Your task to perform on an android device: open wifi settings Image 0: 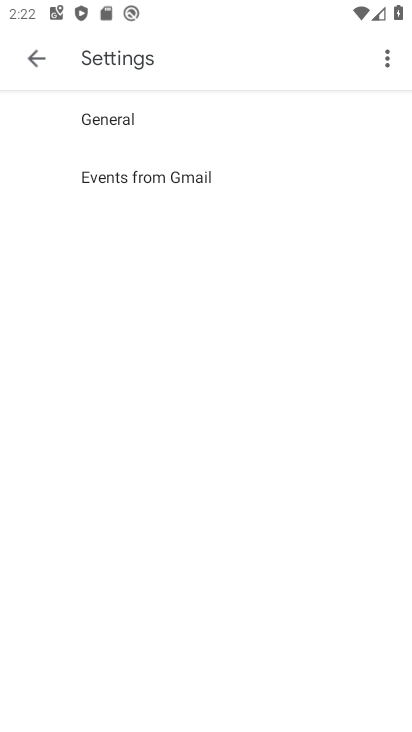
Step 0: press home button
Your task to perform on an android device: open wifi settings Image 1: 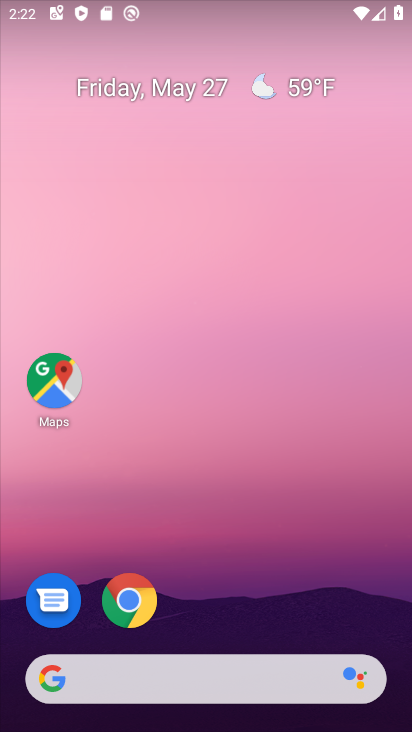
Step 1: drag from (264, 582) to (192, 123)
Your task to perform on an android device: open wifi settings Image 2: 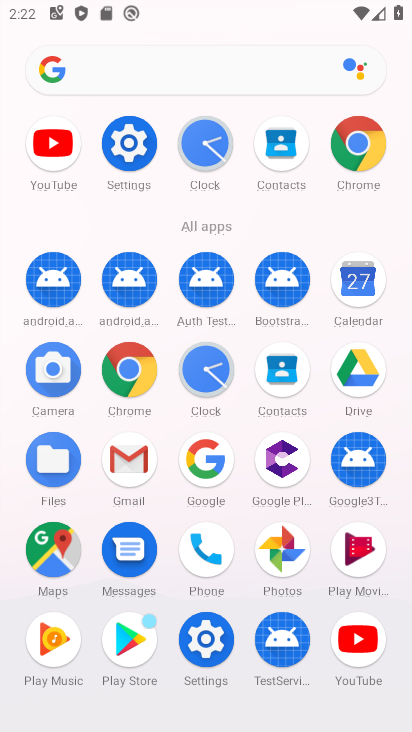
Step 2: click (127, 142)
Your task to perform on an android device: open wifi settings Image 3: 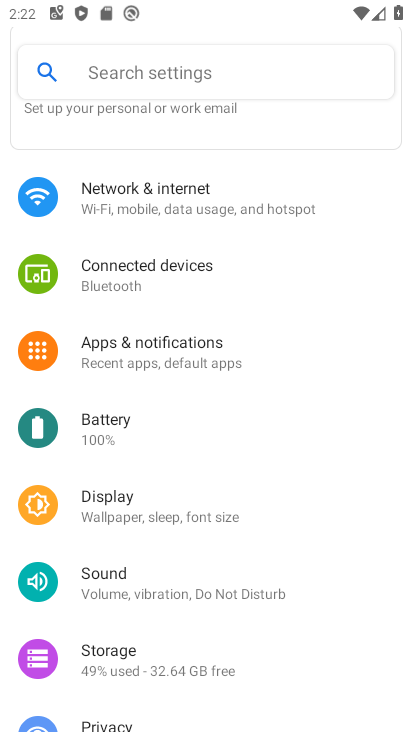
Step 3: click (155, 200)
Your task to perform on an android device: open wifi settings Image 4: 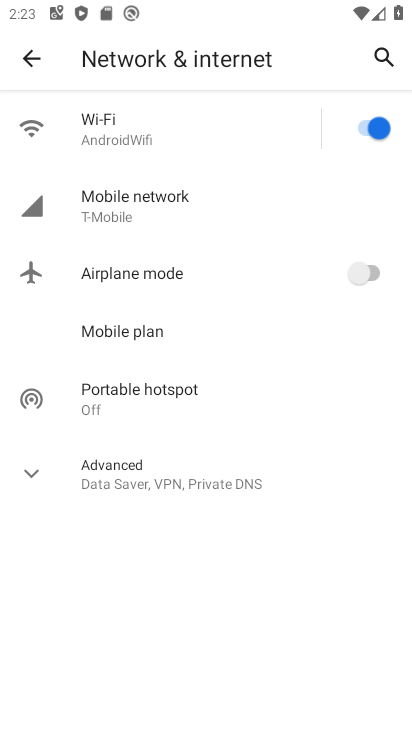
Step 4: click (119, 134)
Your task to perform on an android device: open wifi settings Image 5: 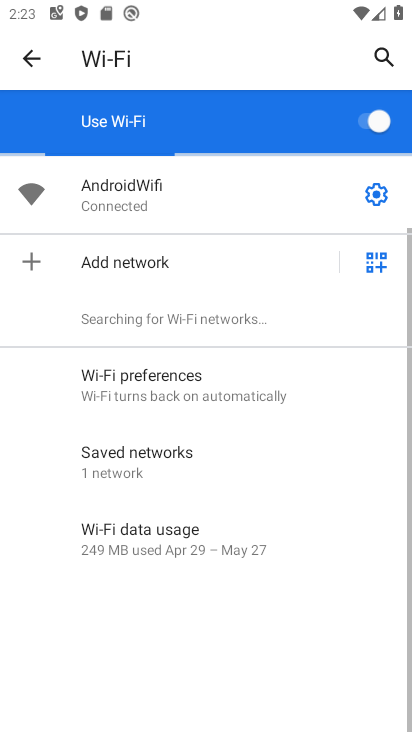
Step 5: click (376, 193)
Your task to perform on an android device: open wifi settings Image 6: 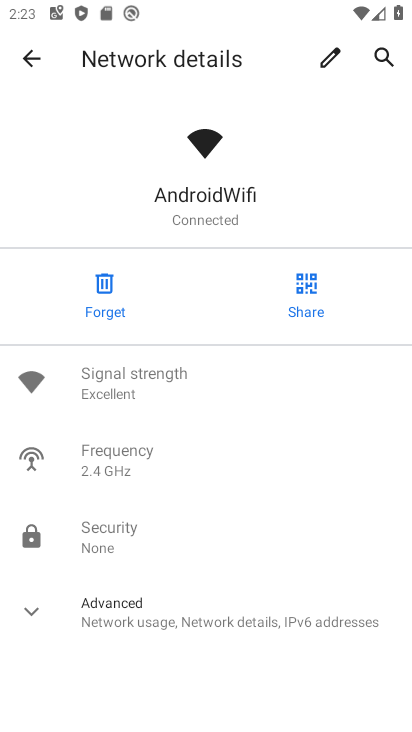
Step 6: task complete